Your task to perform on an android device: Is it going to rain today? Image 0: 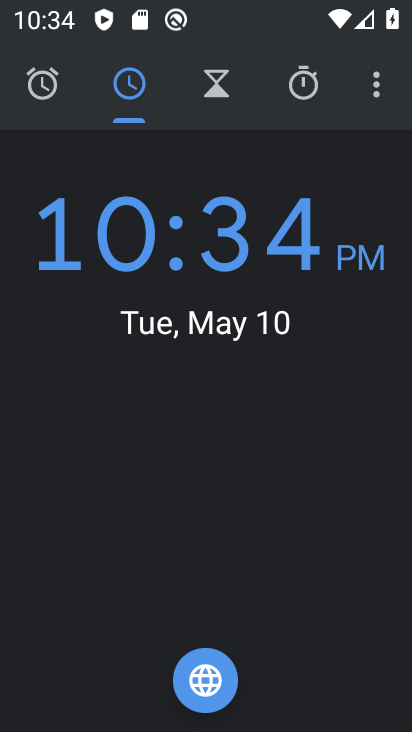
Step 0: press home button
Your task to perform on an android device: Is it going to rain today? Image 1: 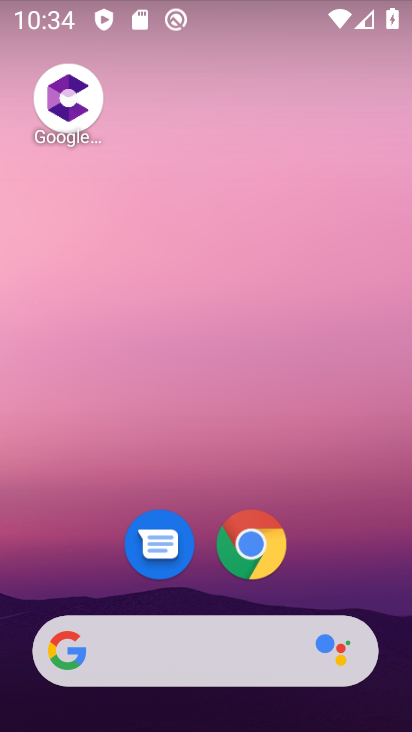
Step 1: click (169, 639)
Your task to perform on an android device: Is it going to rain today? Image 2: 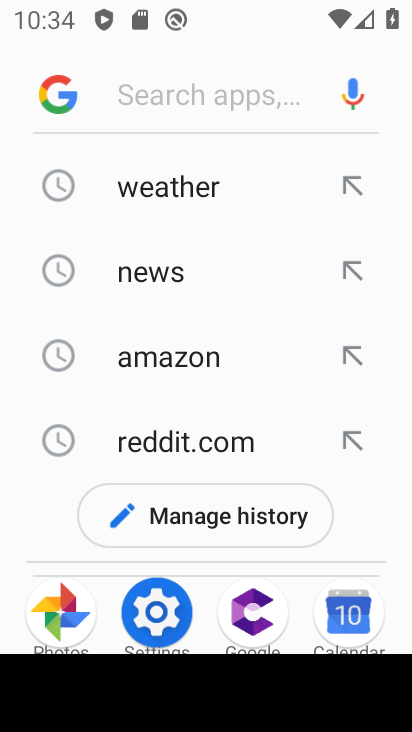
Step 2: type "Is it going to rain?"
Your task to perform on an android device: Is it going to rain today? Image 3: 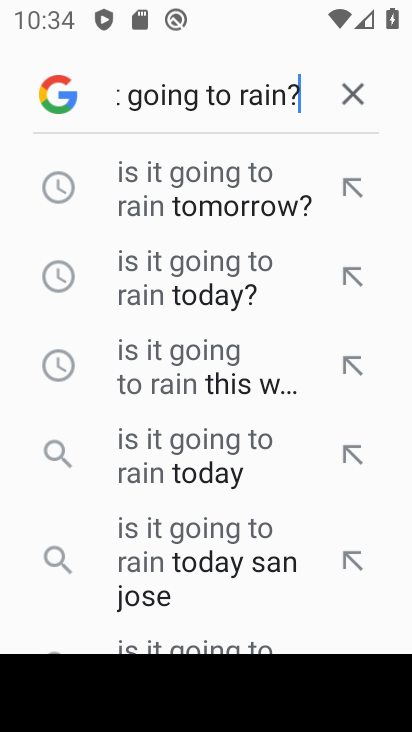
Step 3: click (197, 274)
Your task to perform on an android device: Is it going to rain today? Image 4: 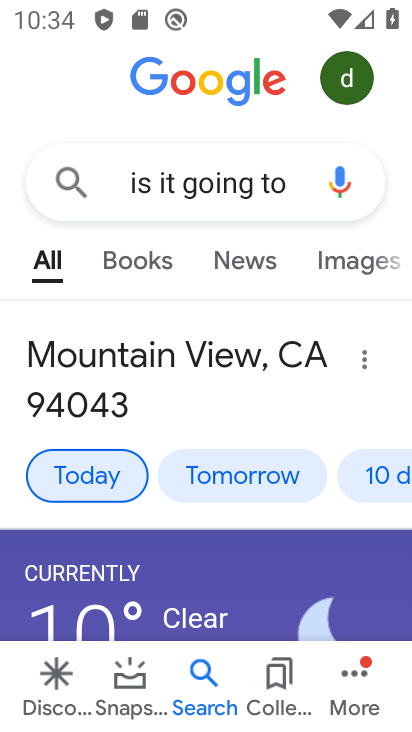
Step 4: task complete